Your task to perform on an android device: toggle show notifications on the lock screen Image 0: 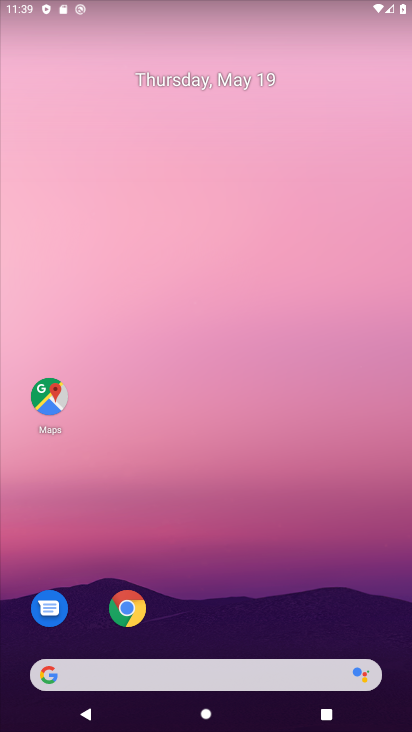
Step 0: drag from (376, 591) to (385, 295)
Your task to perform on an android device: toggle show notifications on the lock screen Image 1: 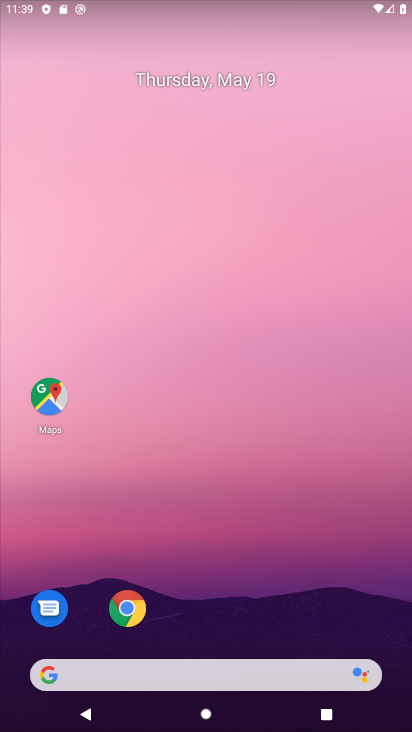
Step 1: drag from (333, 598) to (349, 239)
Your task to perform on an android device: toggle show notifications on the lock screen Image 2: 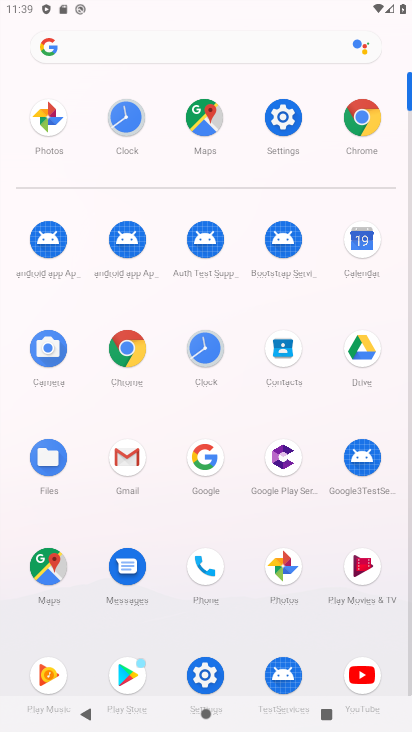
Step 2: click (290, 124)
Your task to perform on an android device: toggle show notifications on the lock screen Image 3: 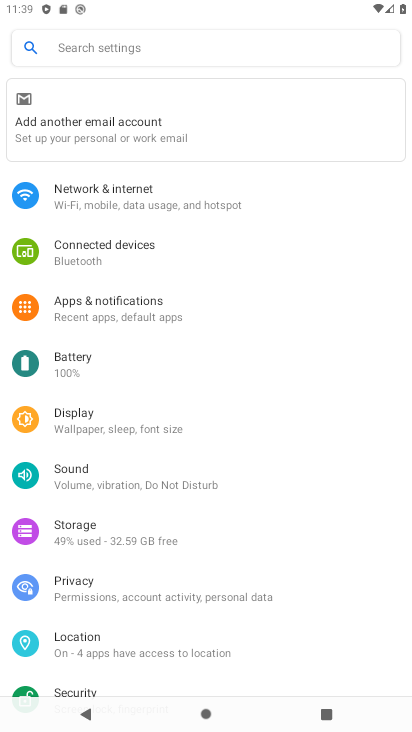
Step 3: drag from (346, 512) to (337, 362)
Your task to perform on an android device: toggle show notifications on the lock screen Image 4: 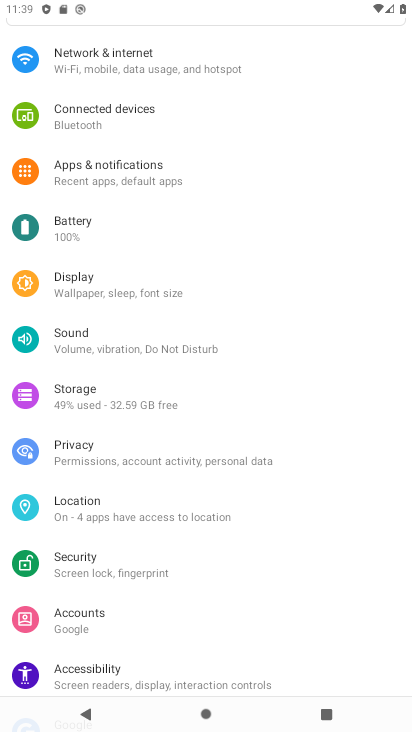
Step 4: drag from (335, 568) to (342, 399)
Your task to perform on an android device: toggle show notifications on the lock screen Image 5: 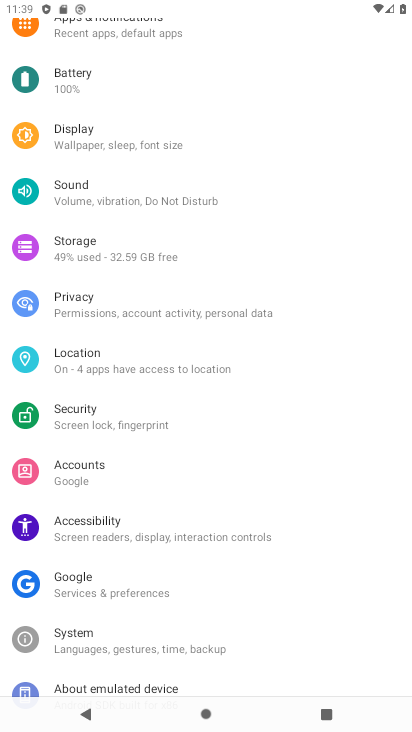
Step 5: drag from (350, 614) to (356, 532)
Your task to perform on an android device: toggle show notifications on the lock screen Image 6: 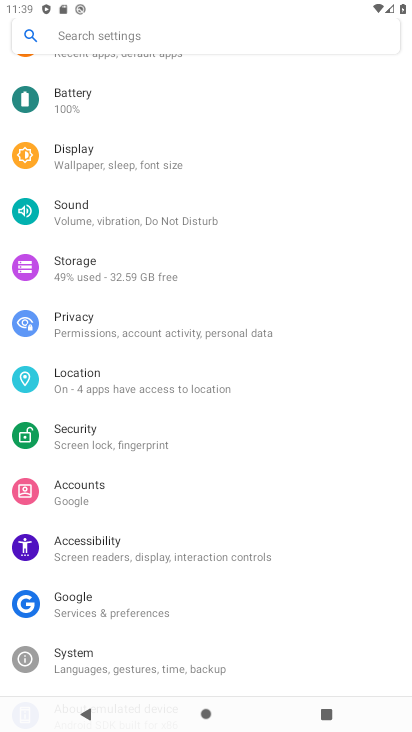
Step 6: drag from (341, 333) to (342, 496)
Your task to perform on an android device: toggle show notifications on the lock screen Image 7: 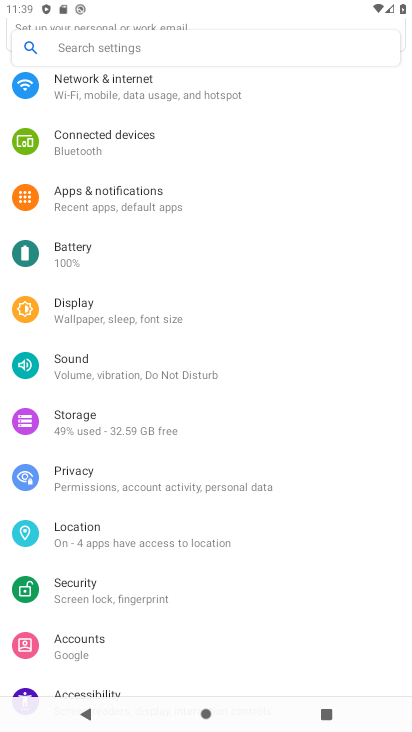
Step 7: drag from (299, 397) to (314, 474)
Your task to perform on an android device: toggle show notifications on the lock screen Image 8: 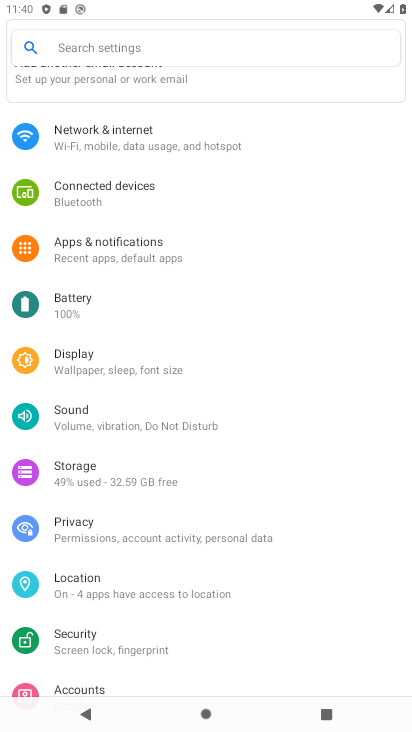
Step 8: click (167, 243)
Your task to perform on an android device: toggle show notifications on the lock screen Image 9: 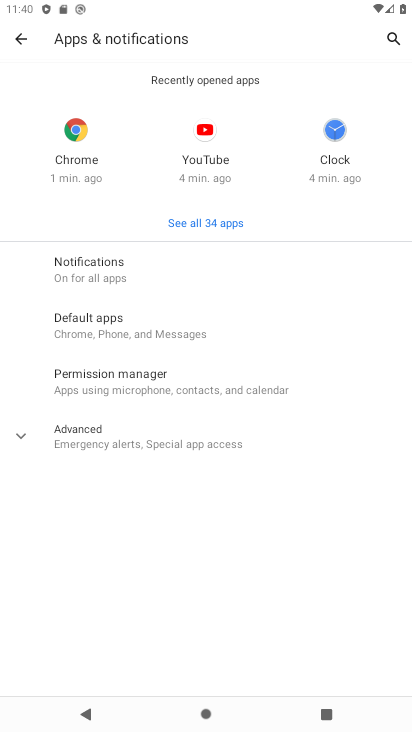
Step 9: click (99, 288)
Your task to perform on an android device: toggle show notifications on the lock screen Image 10: 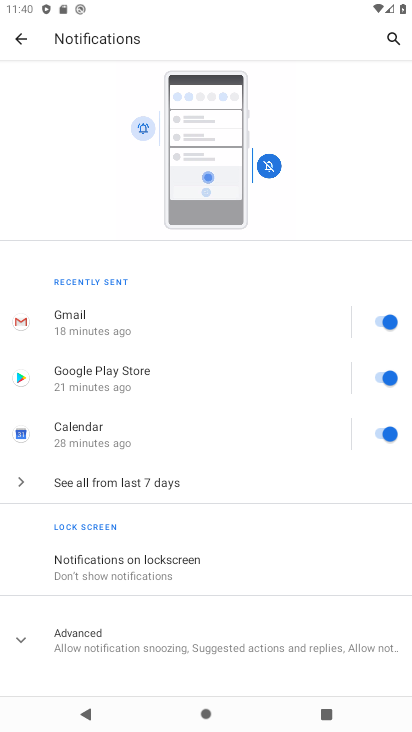
Step 10: drag from (247, 555) to (256, 378)
Your task to perform on an android device: toggle show notifications on the lock screen Image 11: 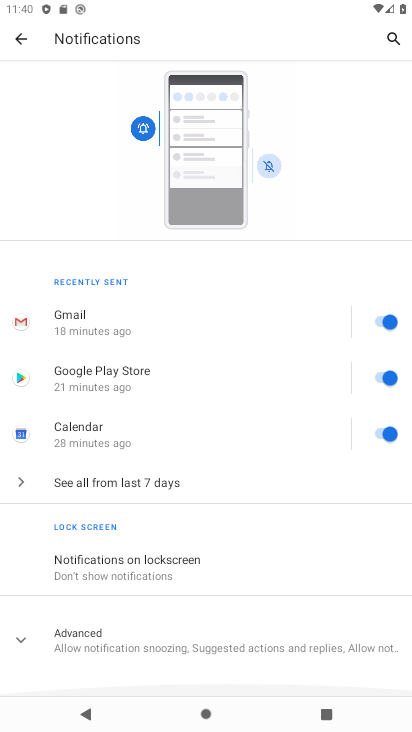
Step 11: click (215, 576)
Your task to perform on an android device: toggle show notifications on the lock screen Image 12: 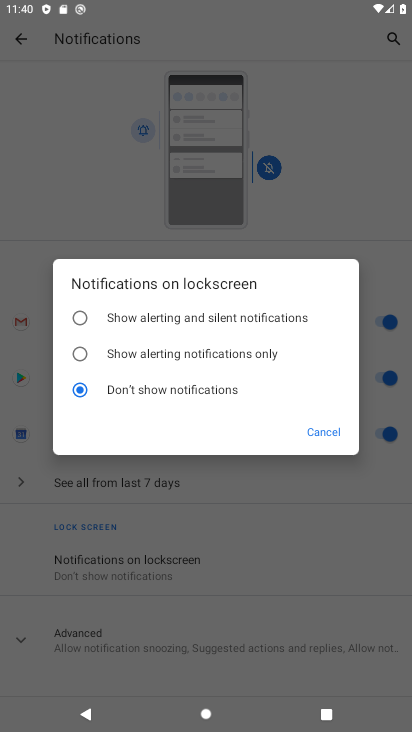
Step 12: click (81, 321)
Your task to perform on an android device: toggle show notifications on the lock screen Image 13: 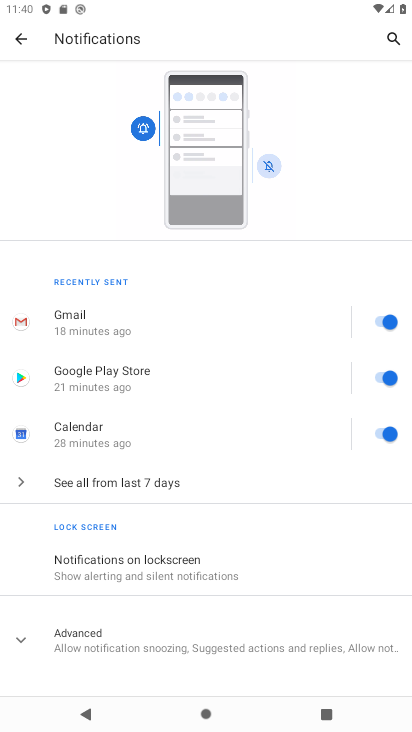
Step 13: task complete